Your task to perform on an android device: check android version Image 0: 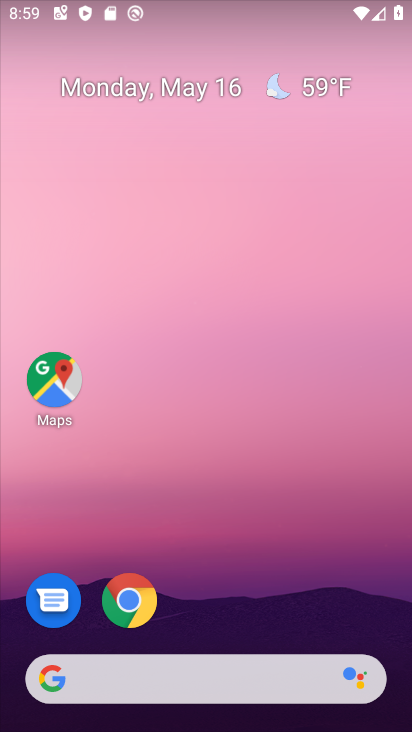
Step 0: drag from (207, 656) to (215, 320)
Your task to perform on an android device: check android version Image 1: 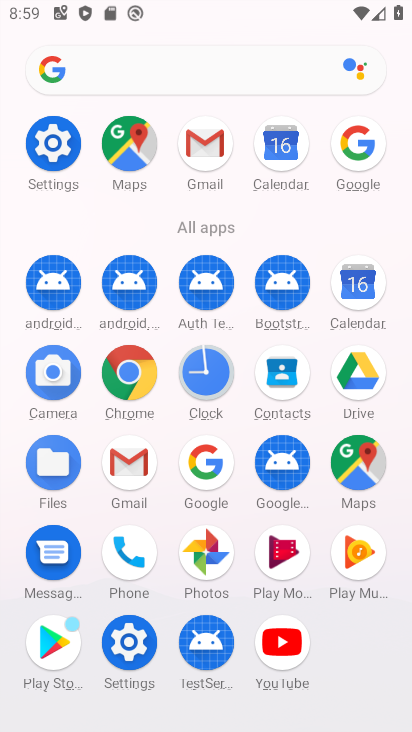
Step 1: click (54, 149)
Your task to perform on an android device: check android version Image 2: 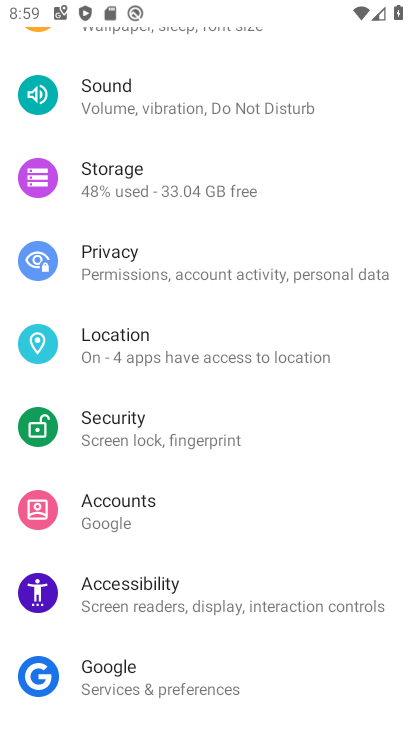
Step 2: drag from (231, 708) to (253, 398)
Your task to perform on an android device: check android version Image 3: 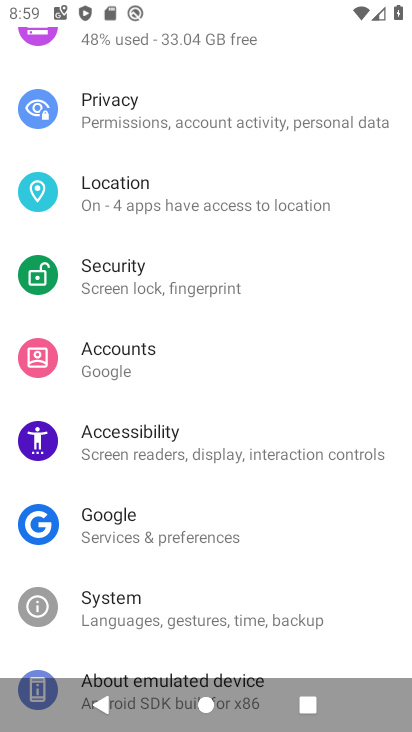
Step 3: drag from (271, 635) to (307, 319)
Your task to perform on an android device: check android version Image 4: 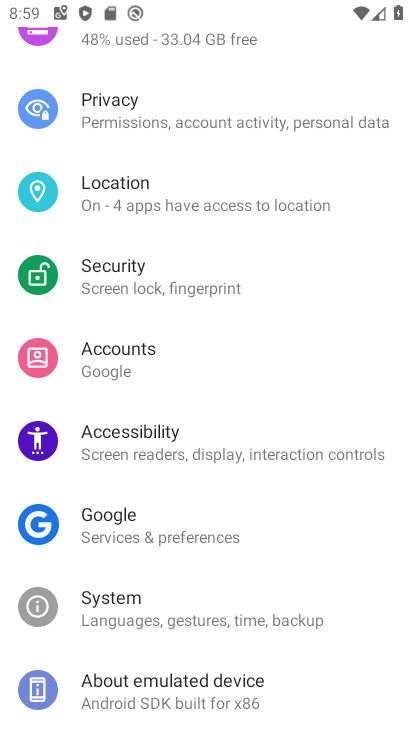
Step 4: click (208, 678)
Your task to perform on an android device: check android version Image 5: 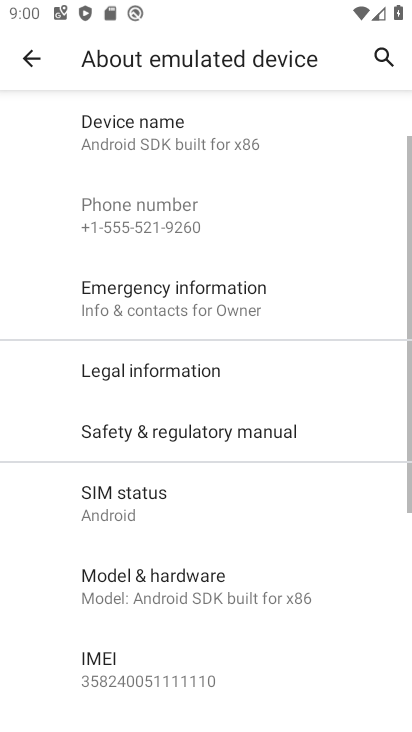
Step 5: drag from (131, 641) to (216, 202)
Your task to perform on an android device: check android version Image 6: 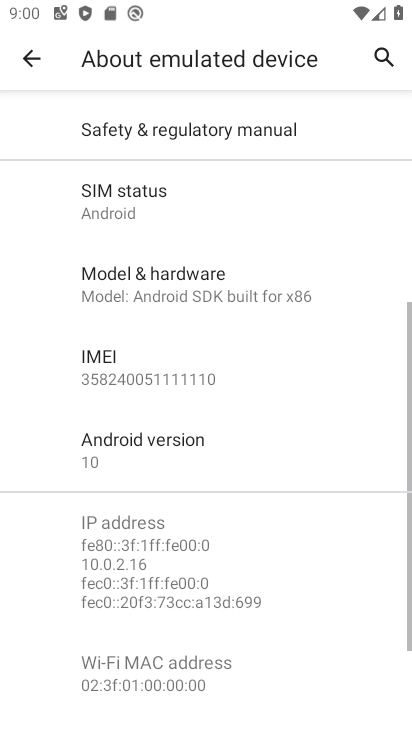
Step 6: click (106, 443)
Your task to perform on an android device: check android version Image 7: 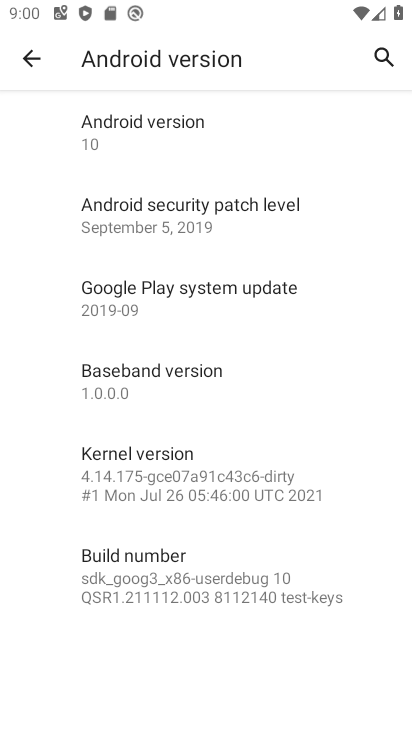
Step 7: task complete